Your task to perform on an android device: Search for pizza restaurants on Maps Image 0: 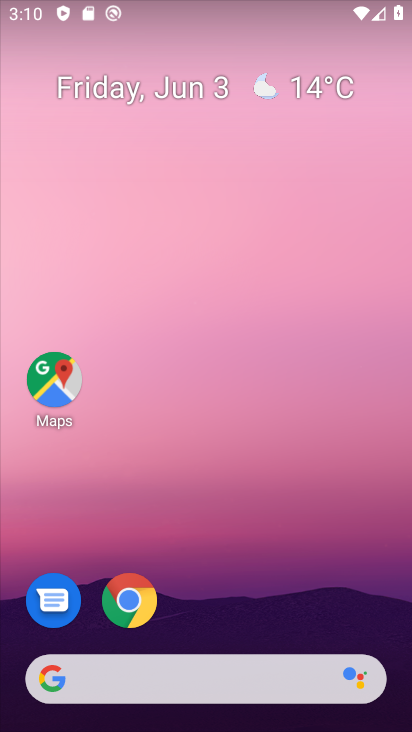
Step 0: click (43, 382)
Your task to perform on an android device: Search for pizza restaurants on Maps Image 1: 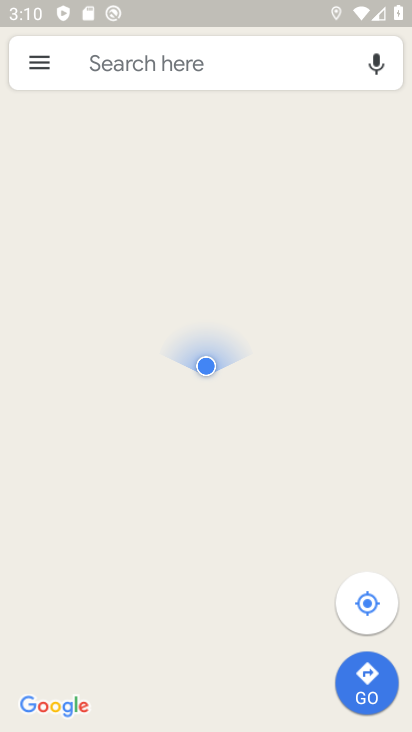
Step 1: click (203, 85)
Your task to perform on an android device: Search for pizza restaurants on Maps Image 2: 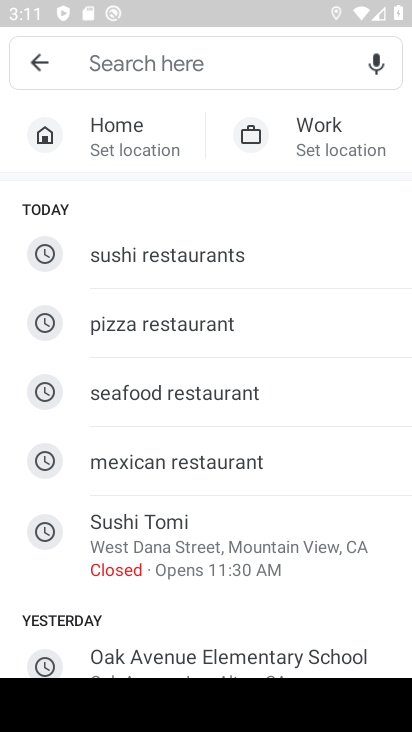
Step 2: type "Pizza restaurants "
Your task to perform on an android device: Search for pizza restaurants on Maps Image 3: 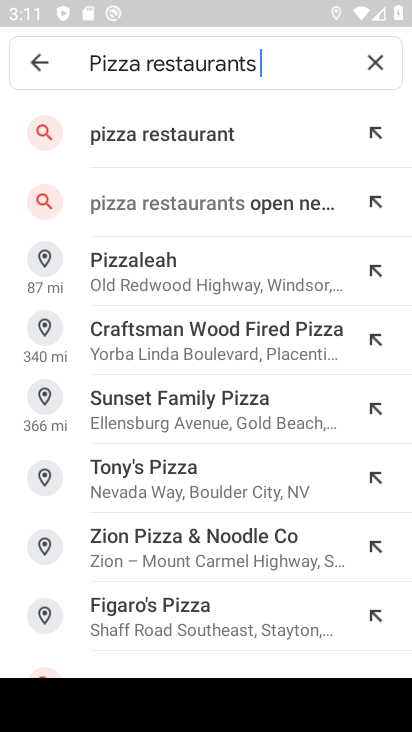
Step 3: click (164, 176)
Your task to perform on an android device: Search for pizza restaurants on Maps Image 4: 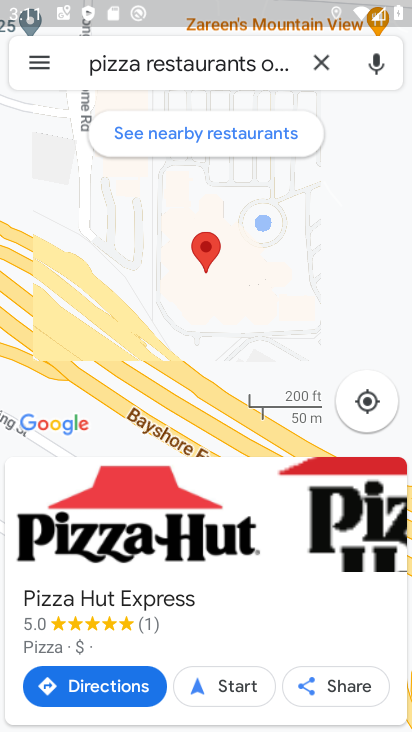
Step 4: task complete